Your task to perform on an android device: move a message to another label in the gmail app Image 0: 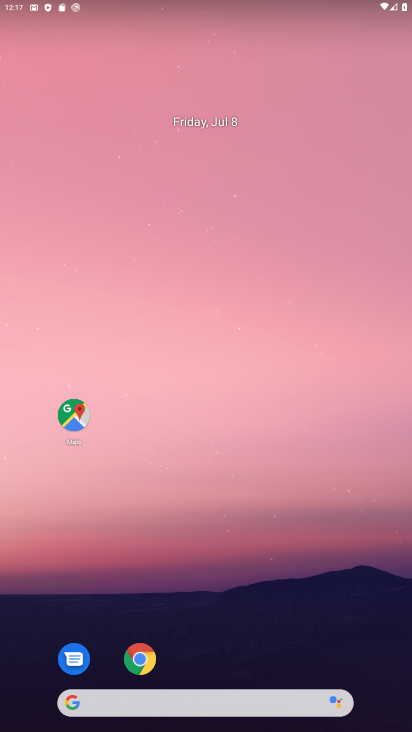
Step 0: drag from (266, 620) to (194, 192)
Your task to perform on an android device: move a message to another label in the gmail app Image 1: 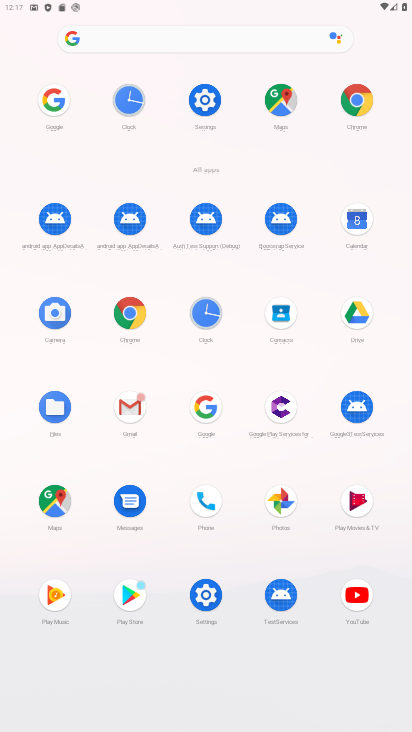
Step 1: click (143, 403)
Your task to perform on an android device: move a message to another label in the gmail app Image 2: 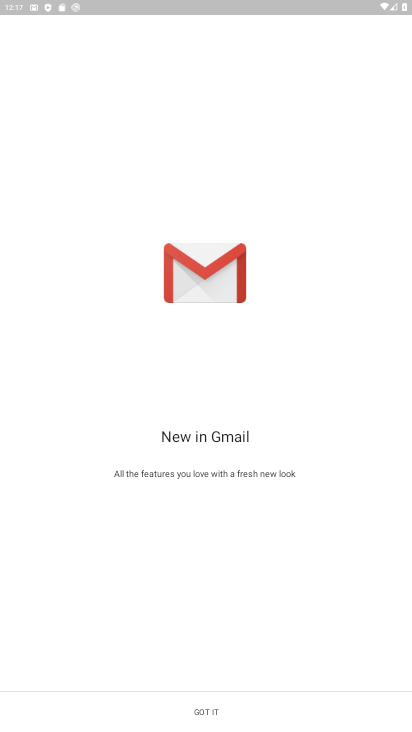
Step 2: click (211, 711)
Your task to perform on an android device: move a message to another label in the gmail app Image 3: 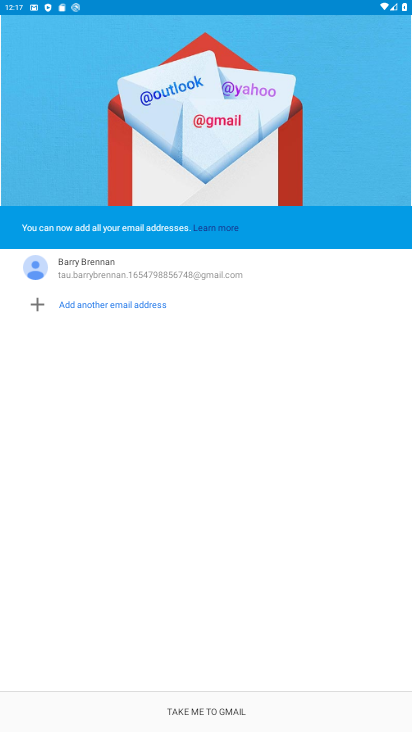
Step 3: click (233, 702)
Your task to perform on an android device: move a message to another label in the gmail app Image 4: 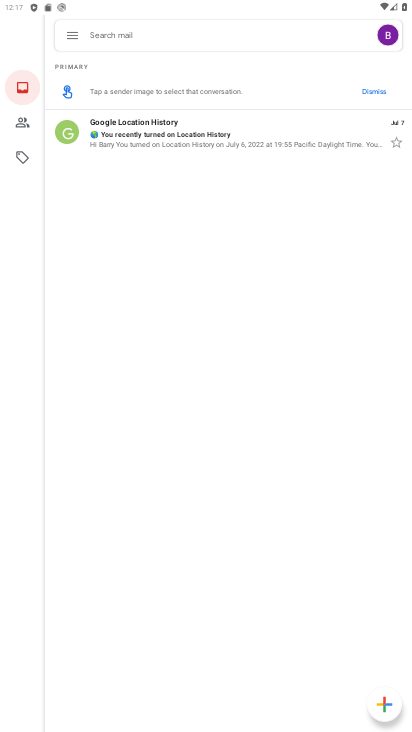
Step 4: click (299, 143)
Your task to perform on an android device: move a message to another label in the gmail app Image 5: 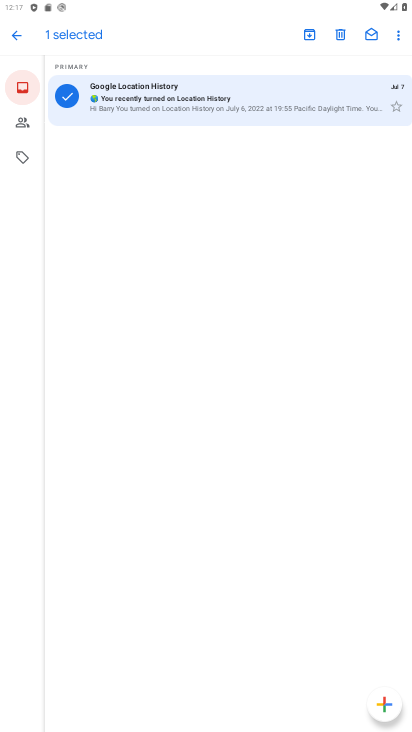
Step 5: click (399, 35)
Your task to perform on an android device: move a message to another label in the gmail app Image 6: 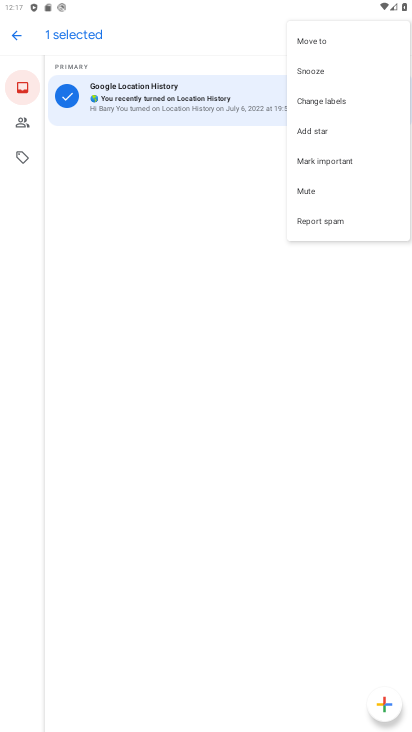
Step 6: click (341, 40)
Your task to perform on an android device: move a message to another label in the gmail app Image 7: 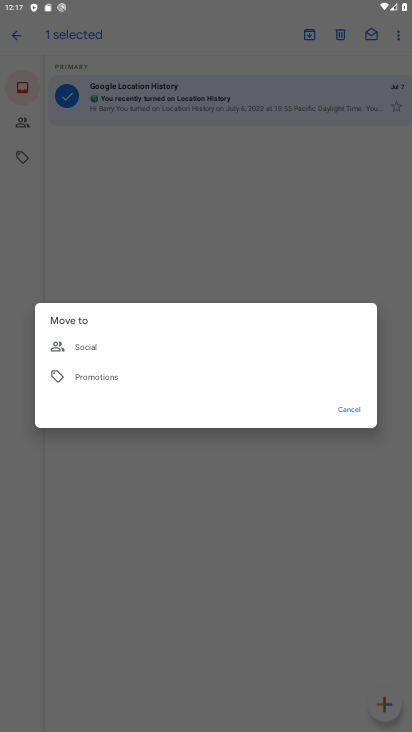
Step 7: click (135, 383)
Your task to perform on an android device: move a message to another label in the gmail app Image 8: 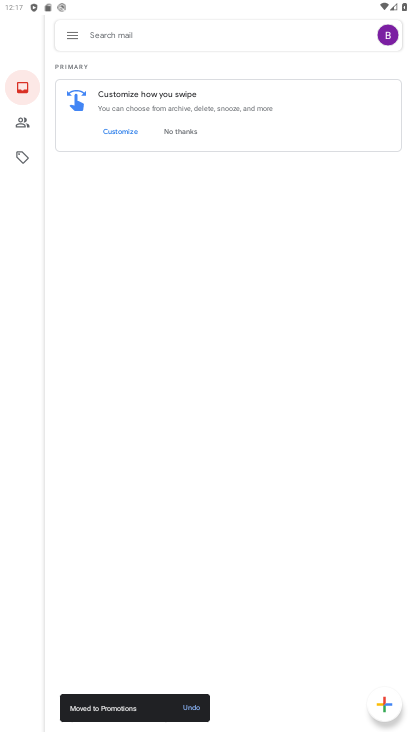
Step 8: task complete